Your task to perform on an android device: check data usage Image 0: 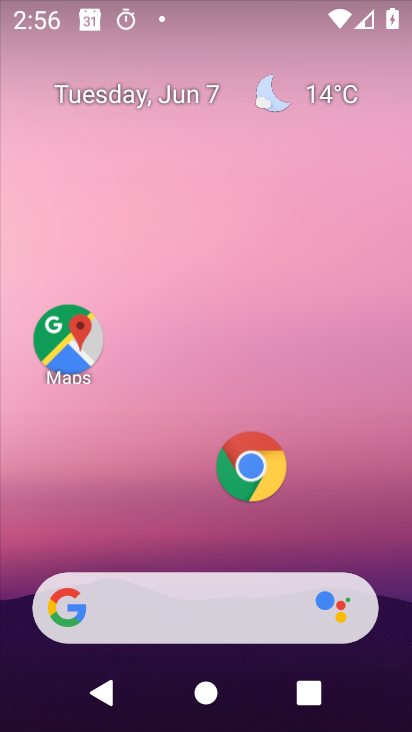
Step 0: drag from (165, 576) to (166, 143)
Your task to perform on an android device: check data usage Image 1: 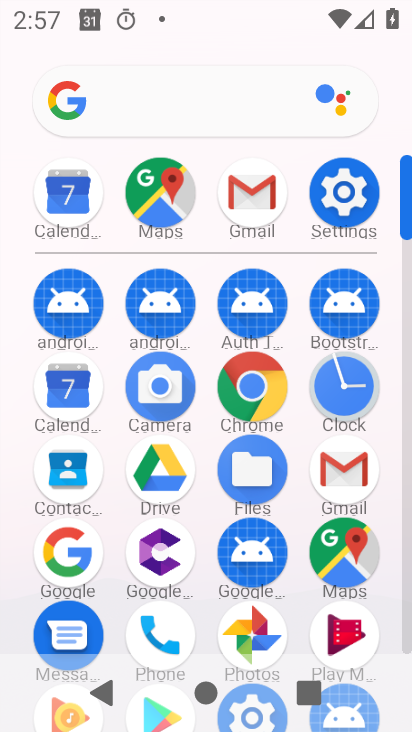
Step 1: click (354, 216)
Your task to perform on an android device: check data usage Image 2: 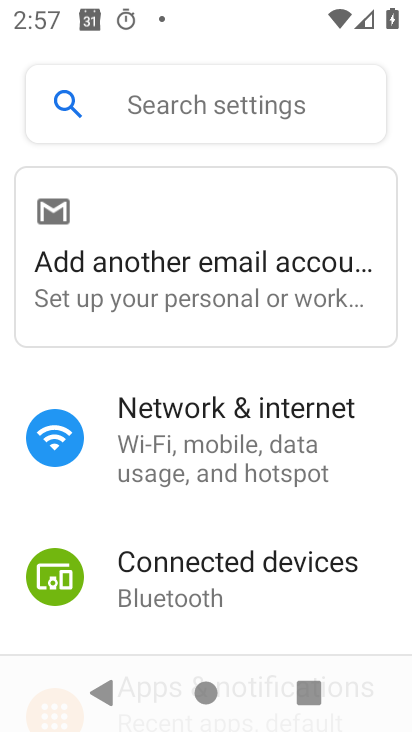
Step 2: drag from (270, 571) to (254, 222)
Your task to perform on an android device: check data usage Image 3: 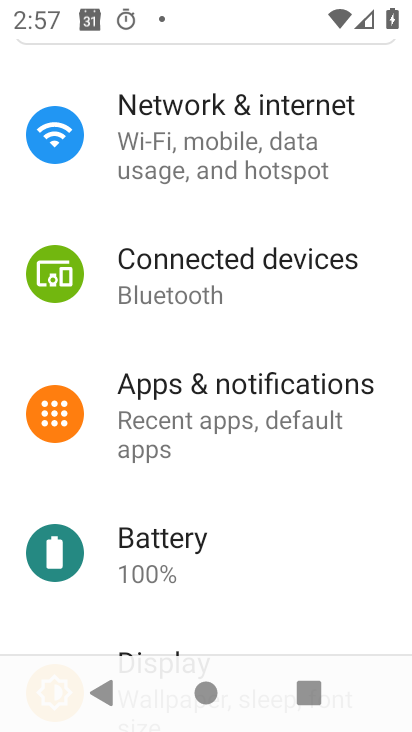
Step 3: drag from (255, 468) to (261, 245)
Your task to perform on an android device: check data usage Image 4: 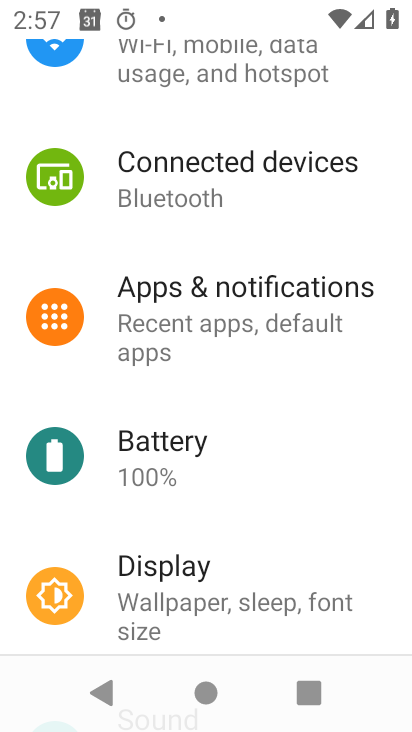
Step 4: drag from (280, 598) to (285, 264)
Your task to perform on an android device: check data usage Image 5: 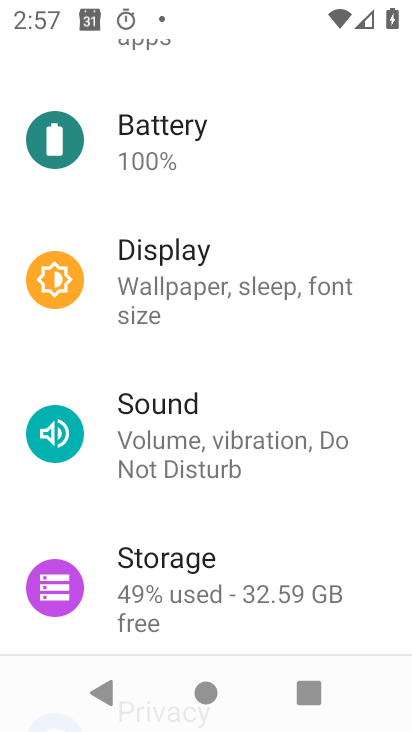
Step 5: drag from (274, 533) to (264, 222)
Your task to perform on an android device: check data usage Image 6: 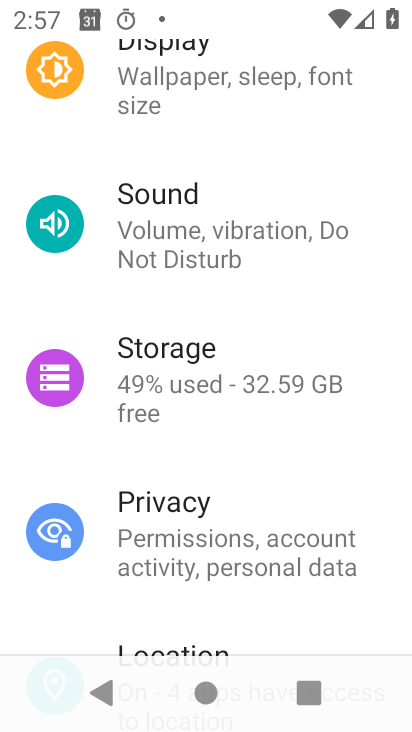
Step 6: drag from (239, 167) to (250, 609)
Your task to perform on an android device: check data usage Image 7: 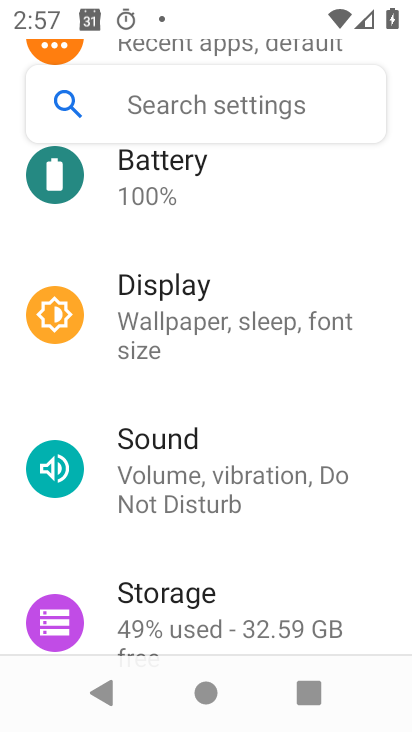
Step 7: drag from (276, 263) to (270, 596)
Your task to perform on an android device: check data usage Image 8: 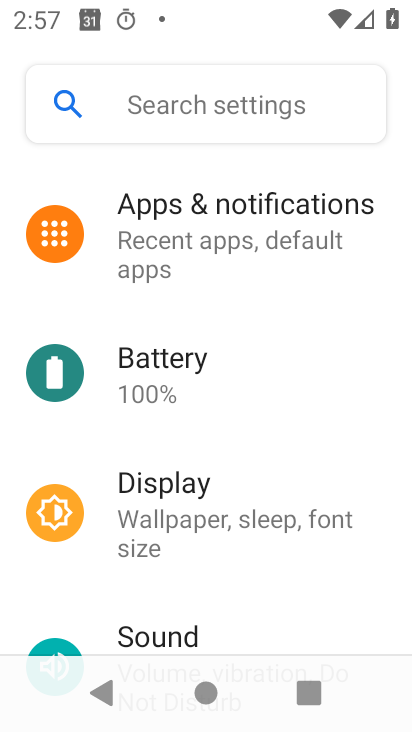
Step 8: drag from (293, 313) to (295, 632)
Your task to perform on an android device: check data usage Image 9: 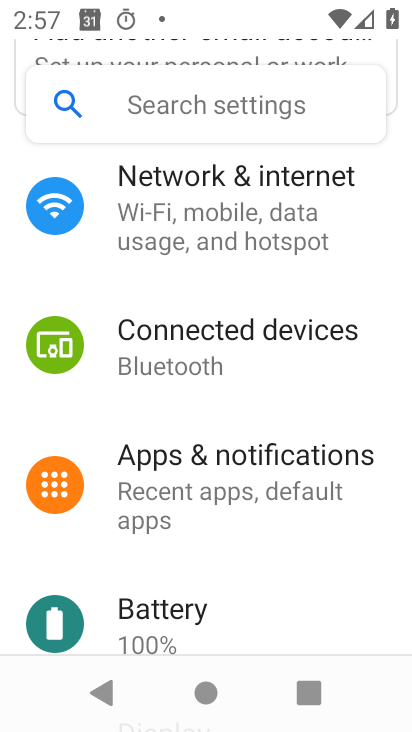
Step 9: click (287, 243)
Your task to perform on an android device: check data usage Image 10: 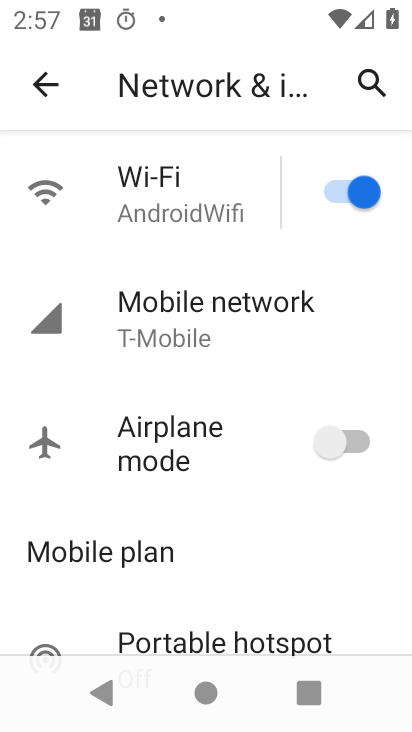
Step 10: drag from (252, 573) to (251, 232)
Your task to perform on an android device: check data usage Image 11: 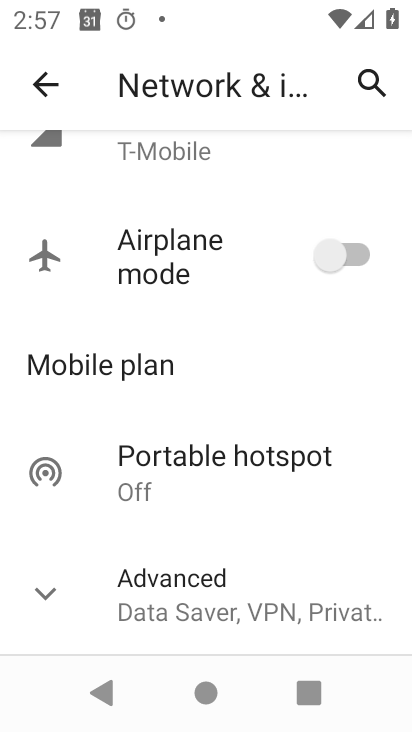
Step 11: drag from (238, 316) to (280, 594)
Your task to perform on an android device: check data usage Image 12: 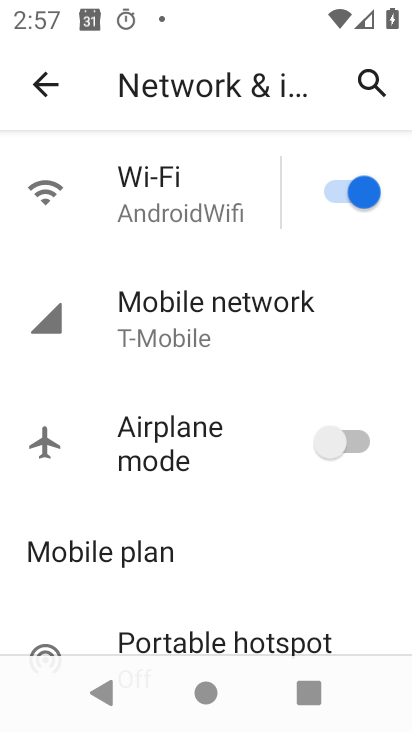
Step 12: click (204, 315)
Your task to perform on an android device: check data usage Image 13: 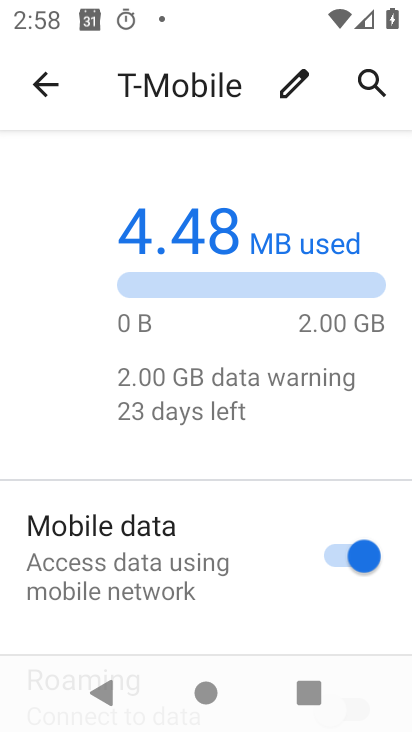
Step 13: task complete